Your task to perform on an android device: Open settings on Google Maps Image 0: 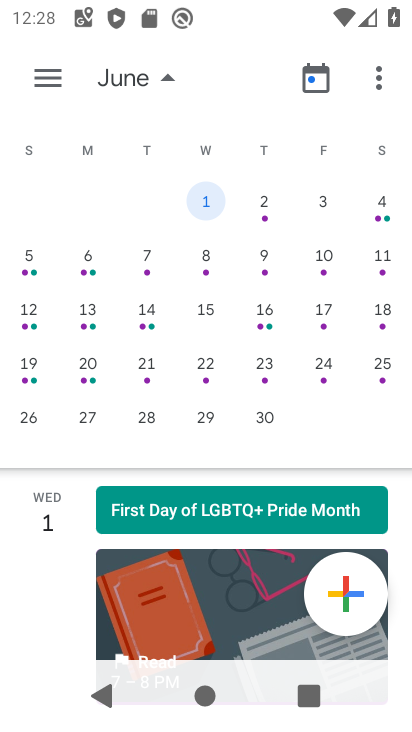
Step 0: press back button
Your task to perform on an android device: Open settings on Google Maps Image 1: 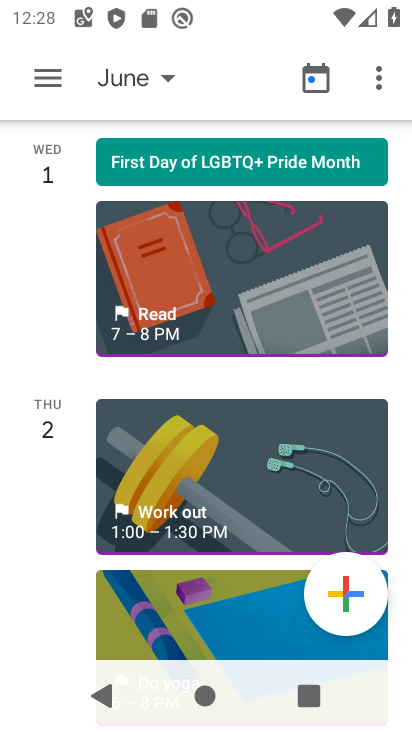
Step 1: press back button
Your task to perform on an android device: Open settings on Google Maps Image 2: 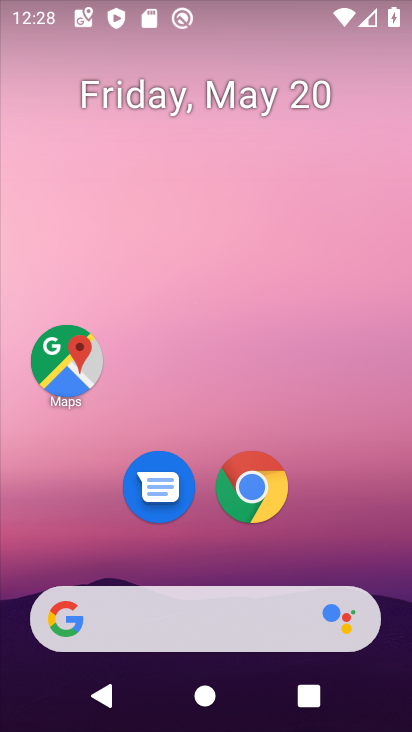
Step 2: click (62, 365)
Your task to perform on an android device: Open settings on Google Maps Image 3: 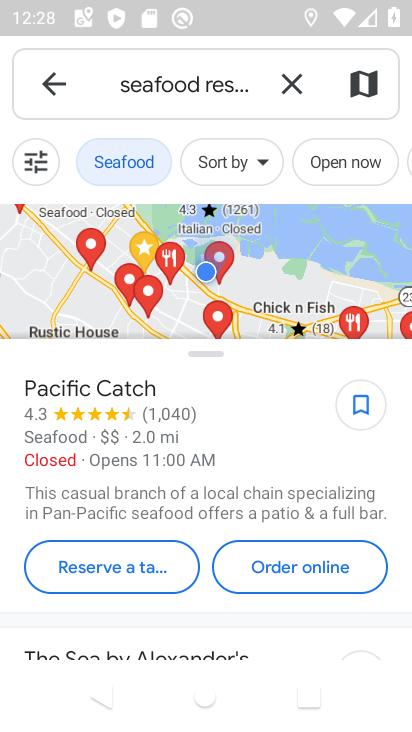
Step 3: task complete